Your task to perform on an android device: open a new tab in the chrome app Image 0: 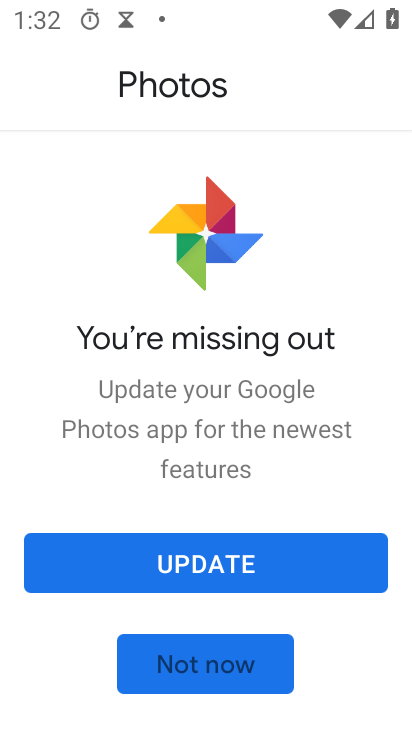
Step 0: press home button
Your task to perform on an android device: open a new tab in the chrome app Image 1: 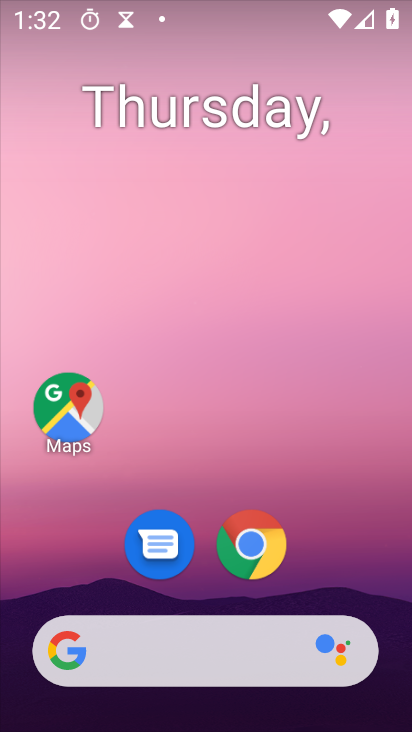
Step 1: click (257, 535)
Your task to perform on an android device: open a new tab in the chrome app Image 2: 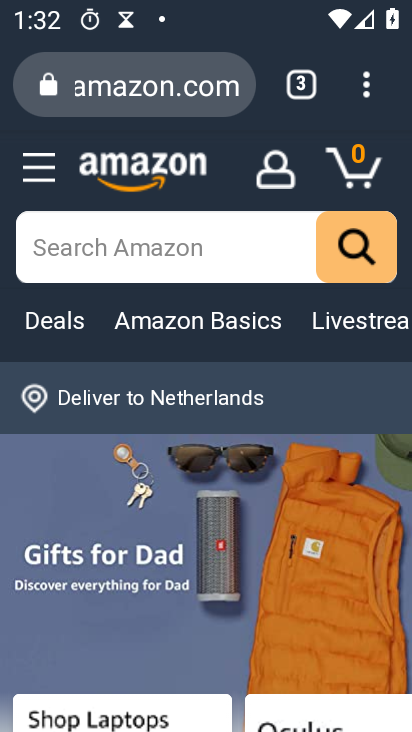
Step 2: click (368, 98)
Your task to perform on an android device: open a new tab in the chrome app Image 3: 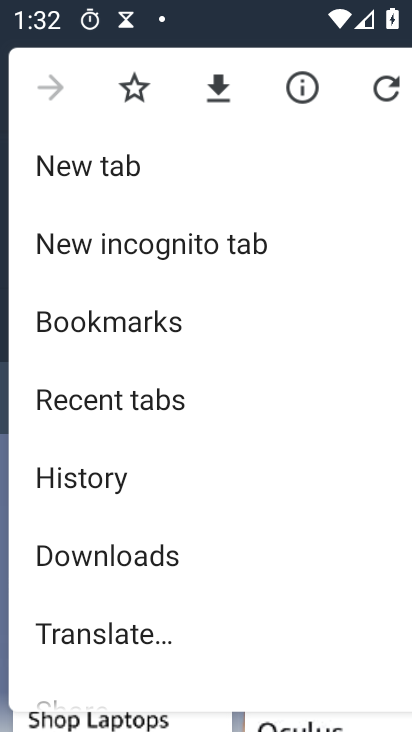
Step 3: click (100, 168)
Your task to perform on an android device: open a new tab in the chrome app Image 4: 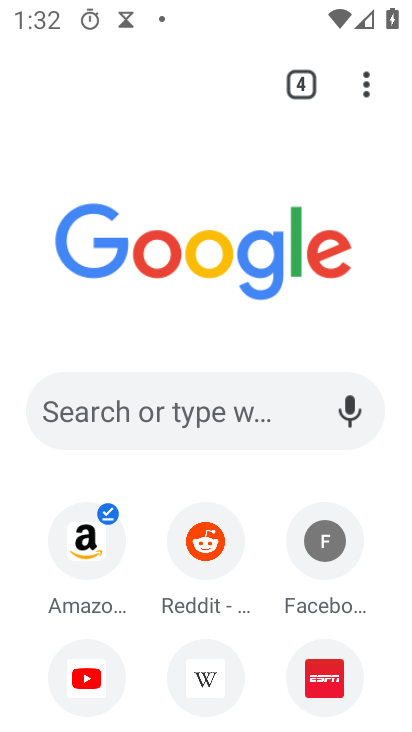
Step 4: task complete